Your task to perform on an android device: stop showing notifications on the lock screen Image 0: 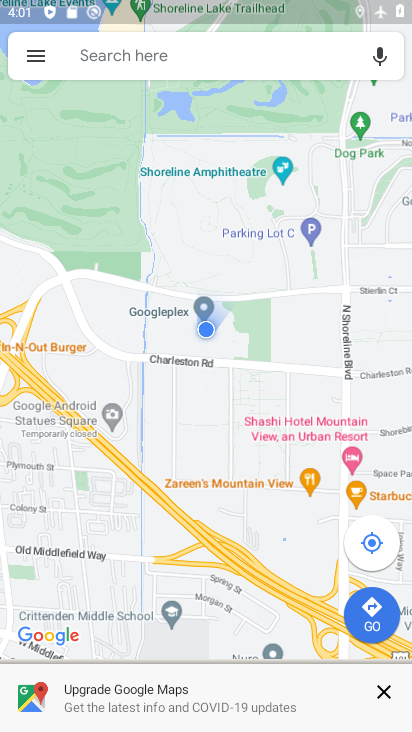
Step 0: press home button
Your task to perform on an android device: stop showing notifications on the lock screen Image 1: 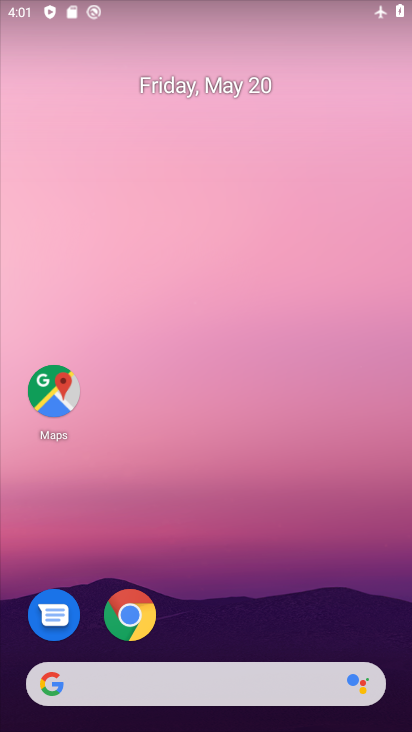
Step 1: drag from (215, 625) to (279, 219)
Your task to perform on an android device: stop showing notifications on the lock screen Image 2: 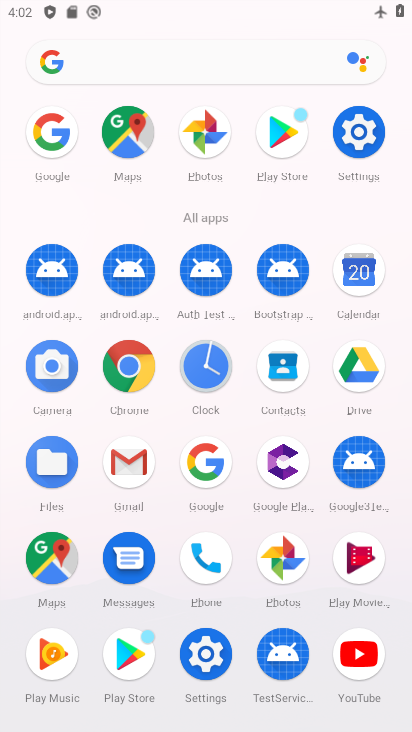
Step 2: click (206, 670)
Your task to perform on an android device: stop showing notifications on the lock screen Image 3: 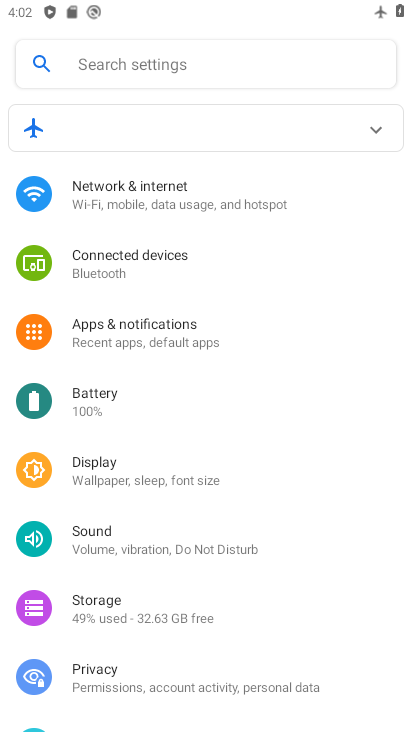
Step 3: click (195, 335)
Your task to perform on an android device: stop showing notifications on the lock screen Image 4: 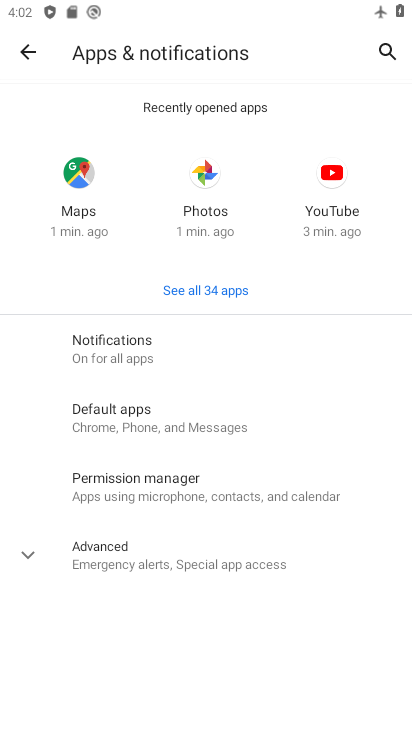
Step 4: click (195, 360)
Your task to perform on an android device: stop showing notifications on the lock screen Image 5: 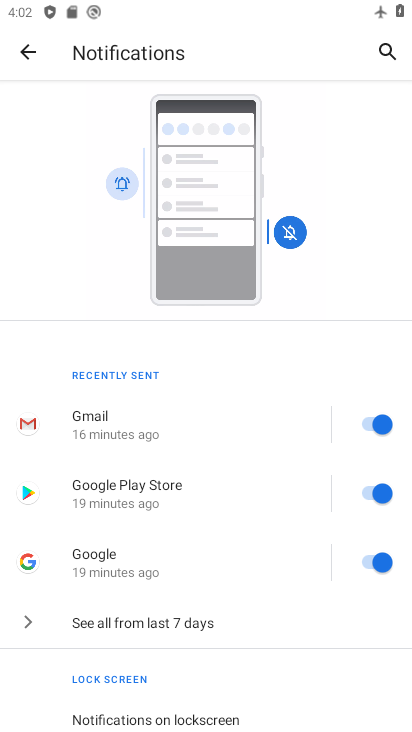
Step 5: drag from (200, 561) to (250, 270)
Your task to perform on an android device: stop showing notifications on the lock screen Image 6: 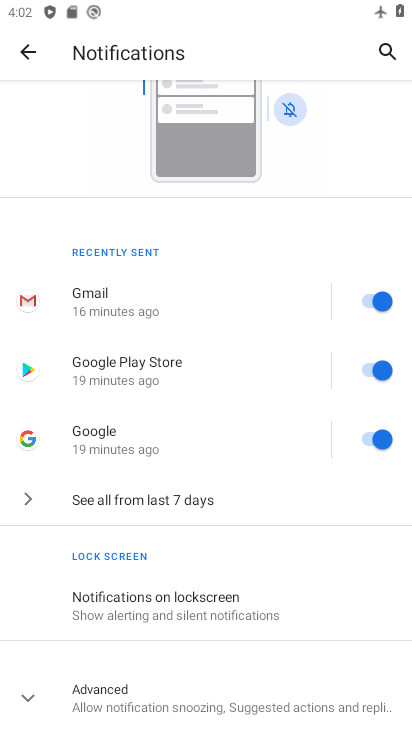
Step 6: drag from (182, 583) to (248, 367)
Your task to perform on an android device: stop showing notifications on the lock screen Image 7: 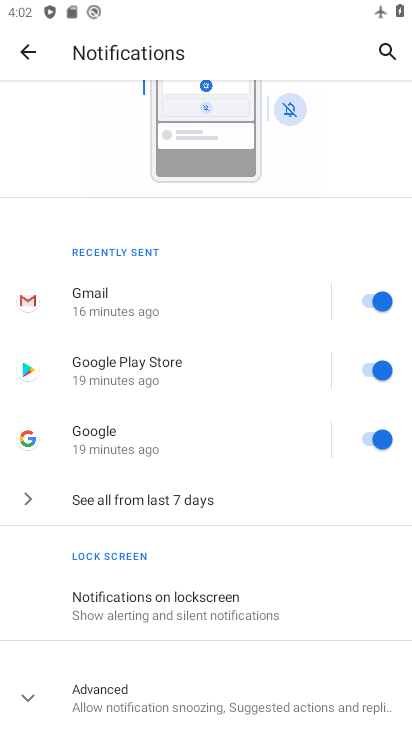
Step 7: click (163, 610)
Your task to perform on an android device: stop showing notifications on the lock screen Image 8: 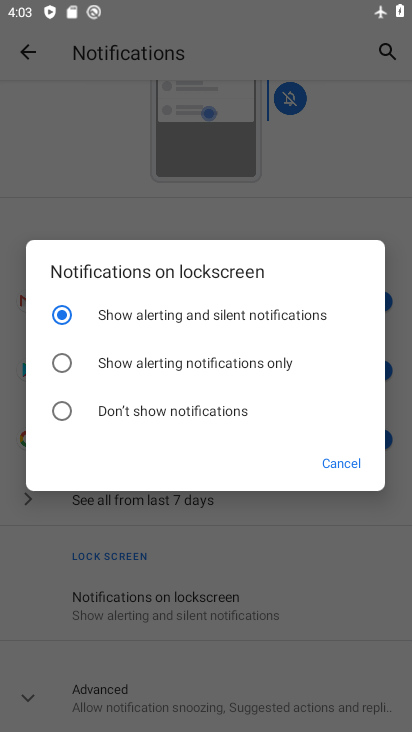
Step 8: click (157, 417)
Your task to perform on an android device: stop showing notifications on the lock screen Image 9: 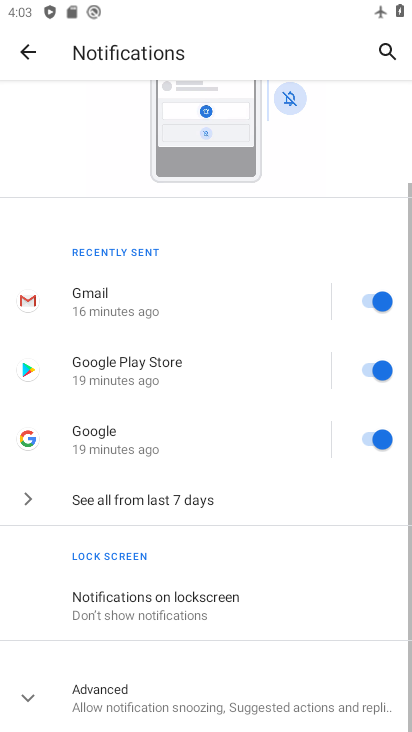
Step 9: task complete